Your task to perform on an android device: turn off priority inbox in the gmail app Image 0: 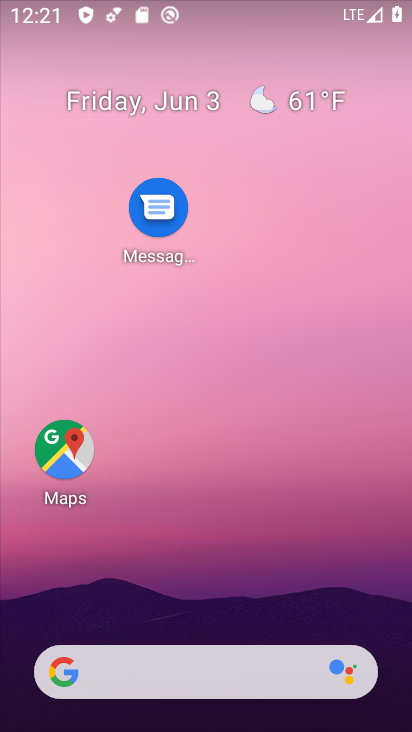
Step 0: click (324, 619)
Your task to perform on an android device: turn off priority inbox in the gmail app Image 1: 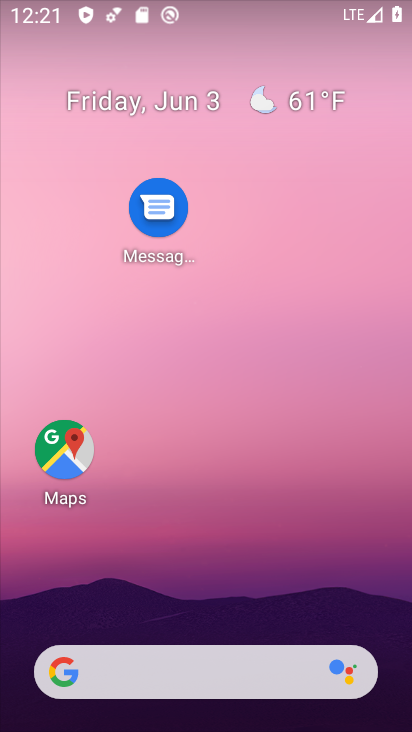
Step 1: drag from (221, 625) to (191, 108)
Your task to perform on an android device: turn off priority inbox in the gmail app Image 2: 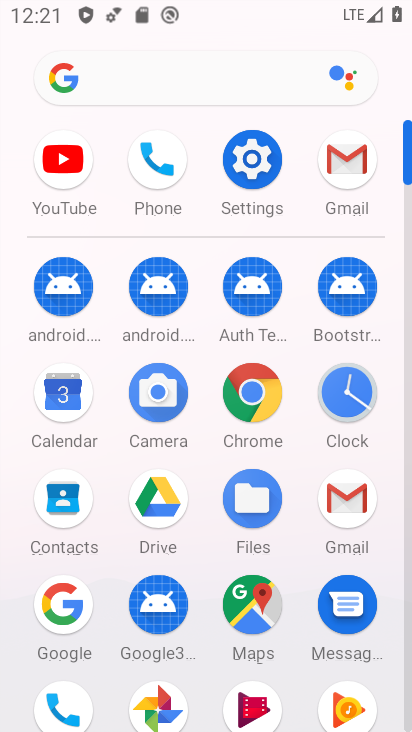
Step 2: click (247, 171)
Your task to perform on an android device: turn off priority inbox in the gmail app Image 3: 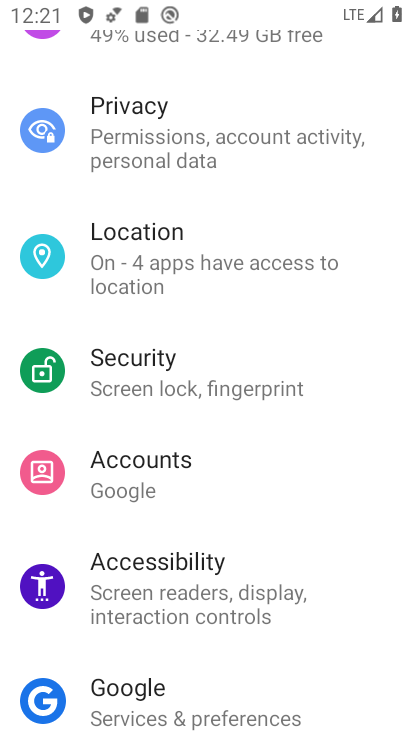
Step 3: press home button
Your task to perform on an android device: turn off priority inbox in the gmail app Image 4: 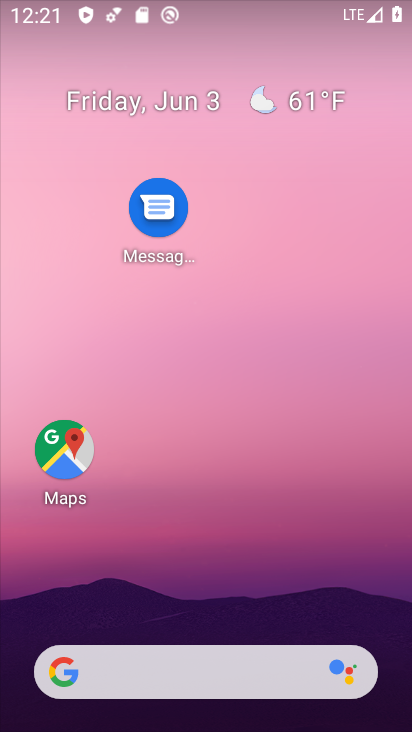
Step 4: drag from (199, 639) to (129, 8)
Your task to perform on an android device: turn off priority inbox in the gmail app Image 5: 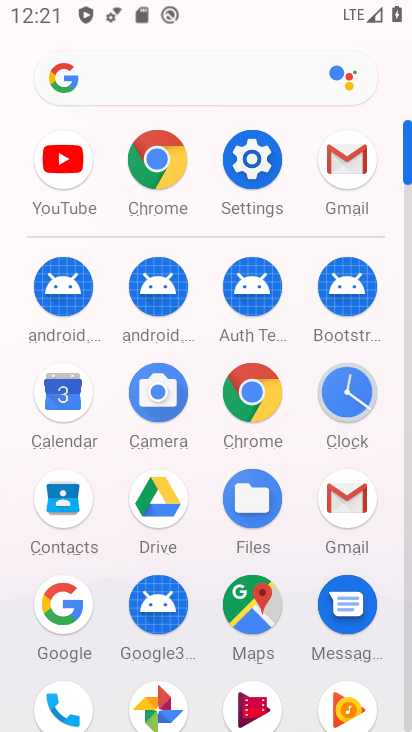
Step 5: click (361, 514)
Your task to perform on an android device: turn off priority inbox in the gmail app Image 6: 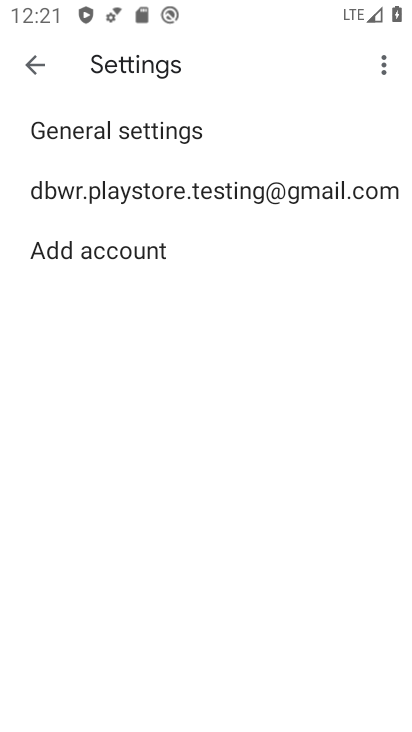
Step 6: click (133, 183)
Your task to perform on an android device: turn off priority inbox in the gmail app Image 7: 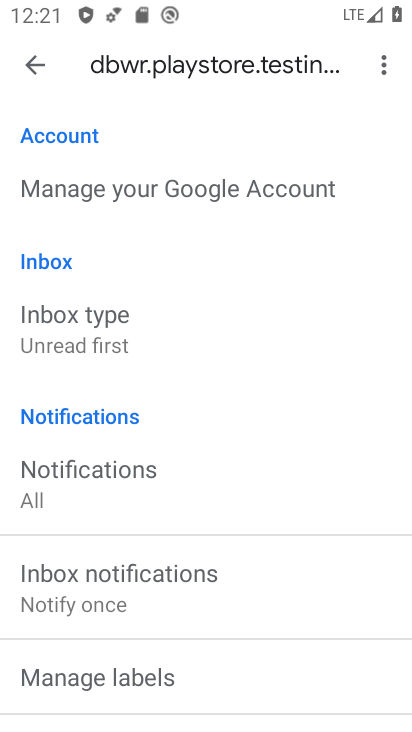
Step 7: task complete